Your task to perform on an android device: add a contact Image 0: 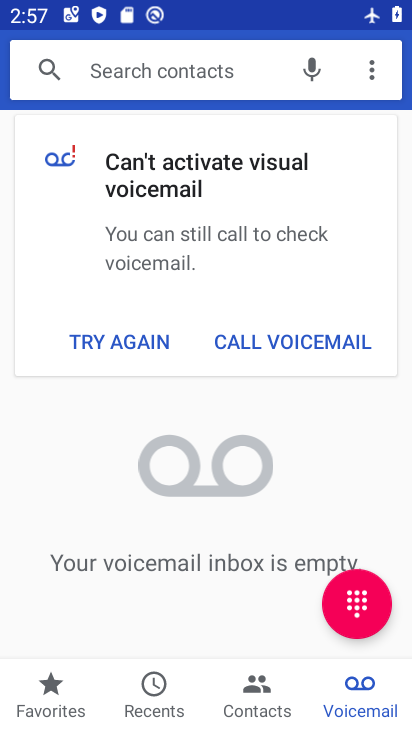
Step 0: press home button
Your task to perform on an android device: add a contact Image 1: 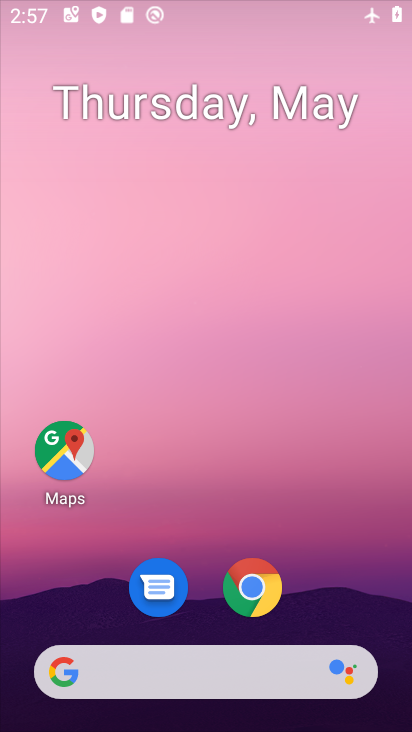
Step 1: drag from (179, 560) to (154, 0)
Your task to perform on an android device: add a contact Image 2: 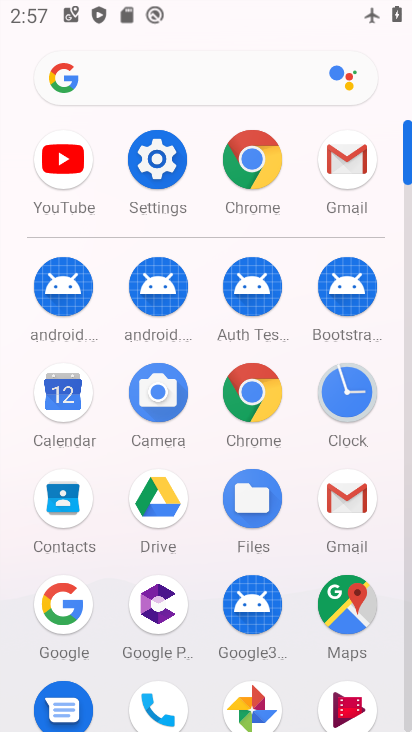
Step 2: click (77, 499)
Your task to perform on an android device: add a contact Image 3: 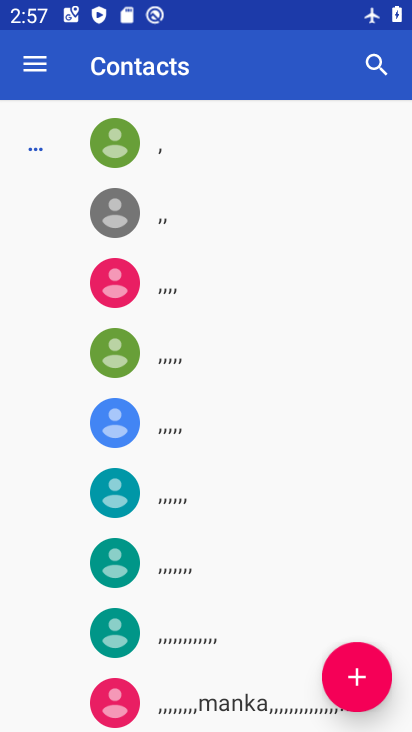
Step 3: click (346, 698)
Your task to perform on an android device: add a contact Image 4: 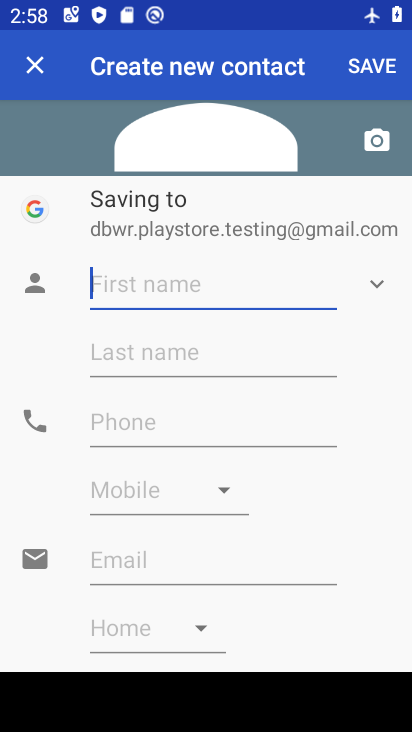
Step 4: type "fyj"
Your task to perform on an android device: add a contact Image 5: 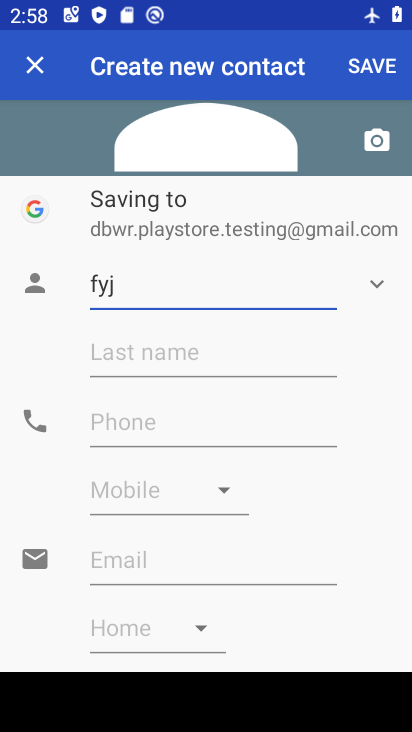
Step 5: click (207, 426)
Your task to perform on an android device: add a contact Image 6: 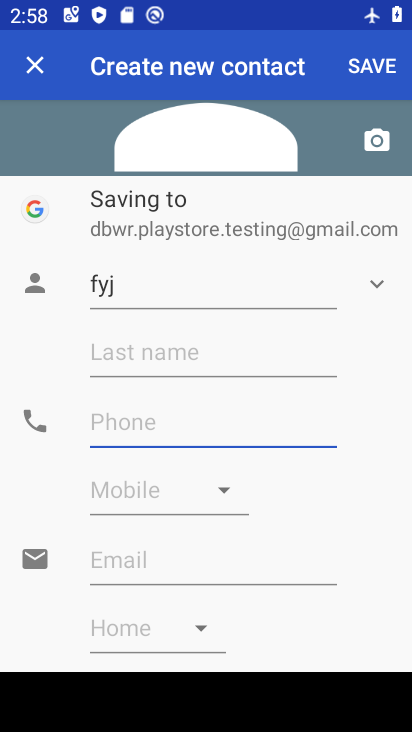
Step 6: type "56575857"
Your task to perform on an android device: add a contact Image 7: 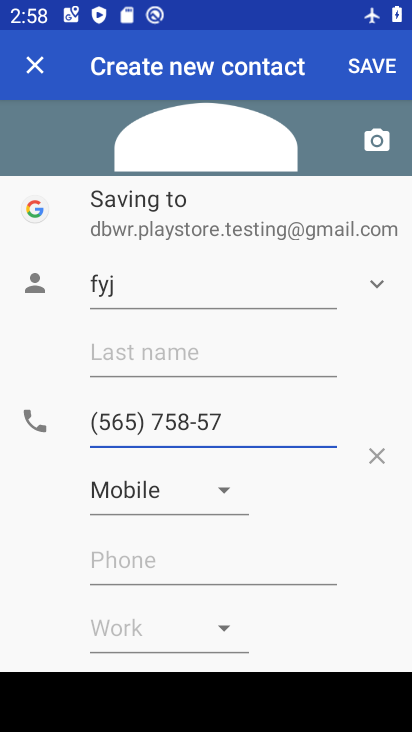
Step 7: click (393, 61)
Your task to perform on an android device: add a contact Image 8: 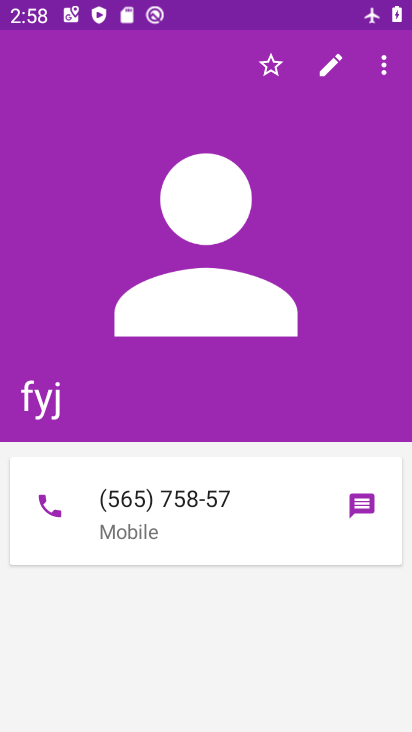
Step 8: task complete